Your task to perform on an android device: Open calendar and show me the first week of next month Image 0: 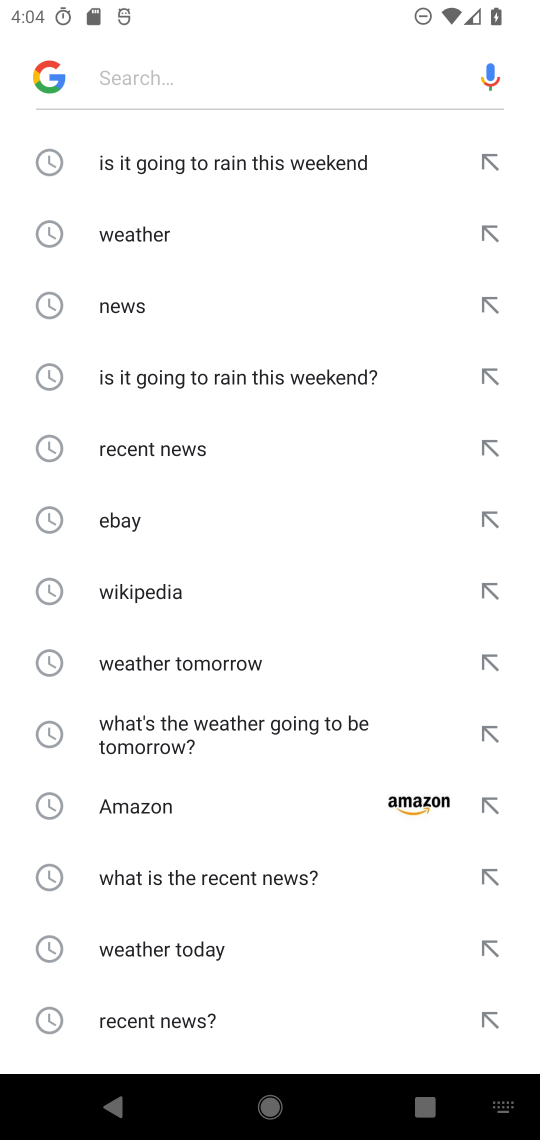
Step 0: press home button
Your task to perform on an android device: Open calendar and show me the first week of next month Image 1: 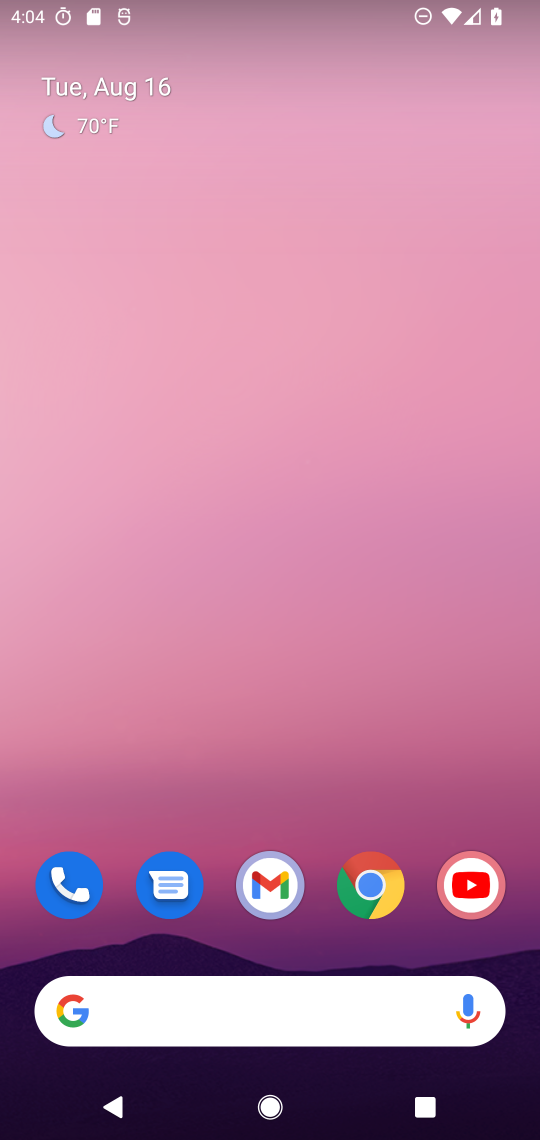
Step 1: drag from (155, 942) to (151, 45)
Your task to perform on an android device: Open calendar and show me the first week of next month Image 2: 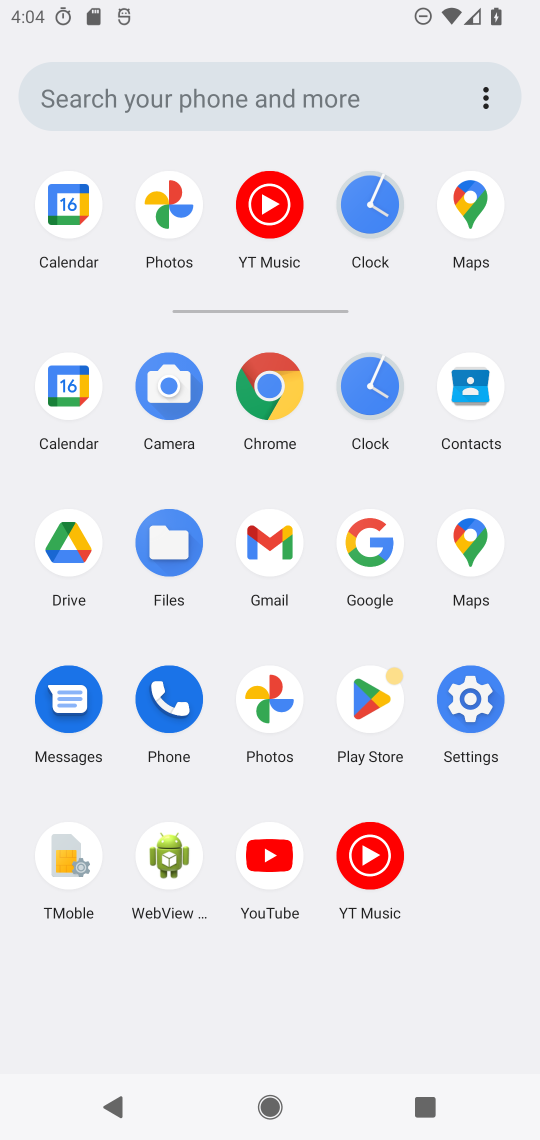
Step 2: click (64, 368)
Your task to perform on an android device: Open calendar and show me the first week of next month Image 3: 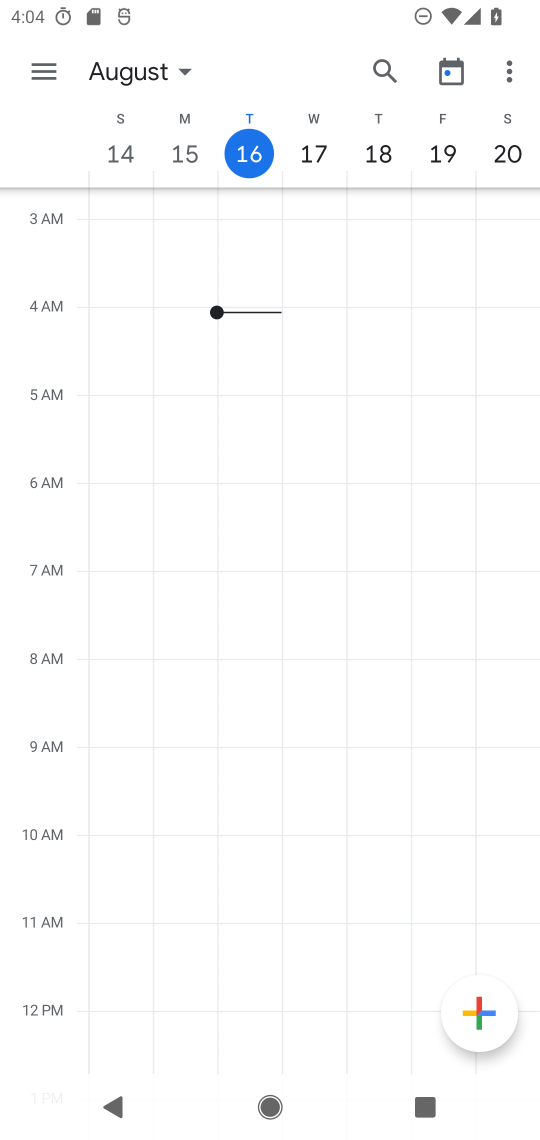
Step 3: task complete